Your task to perform on an android device: Go to Amazon Image 0: 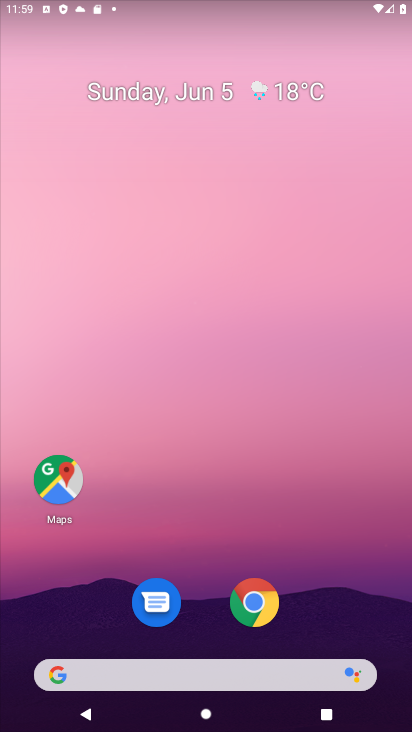
Step 0: drag from (359, 618) to (226, 81)
Your task to perform on an android device: Go to Amazon Image 1: 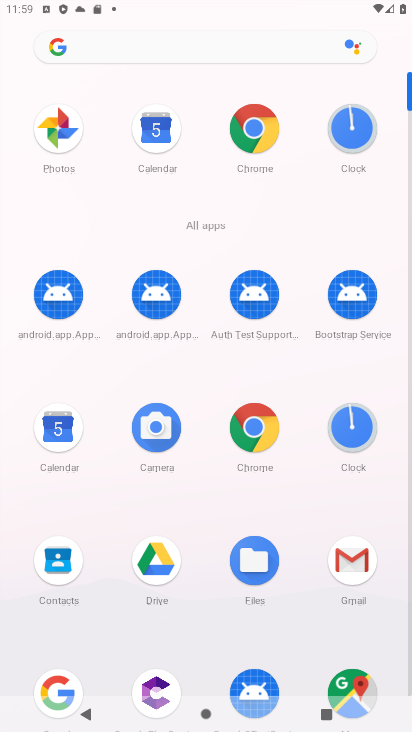
Step 1: click (168, 56)
Your task to perform on an android device: Go to Amazon Image 2: 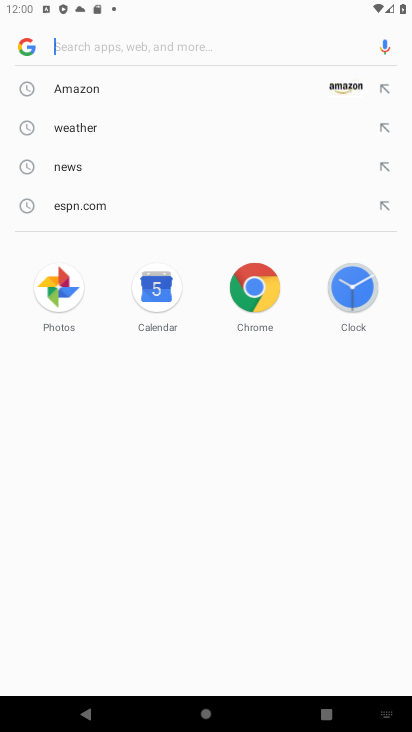
Step 2: click (132, 93)
Your task to perform on an android device: Go to Amazon Image 3: 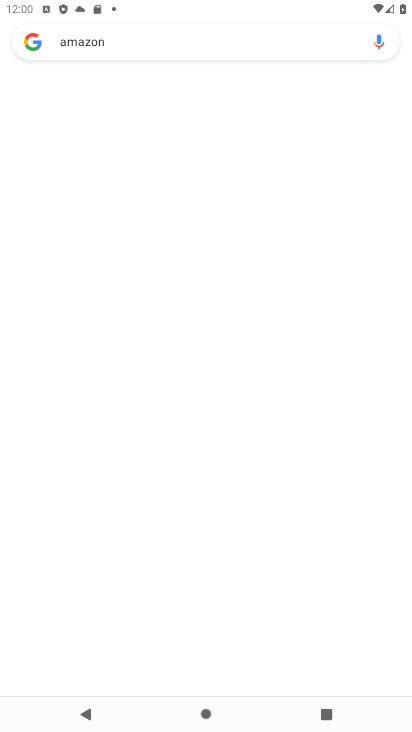
Step 3: task complete